Your task to perform on an android device: What's the weather going to be tomorrow? Image 0: 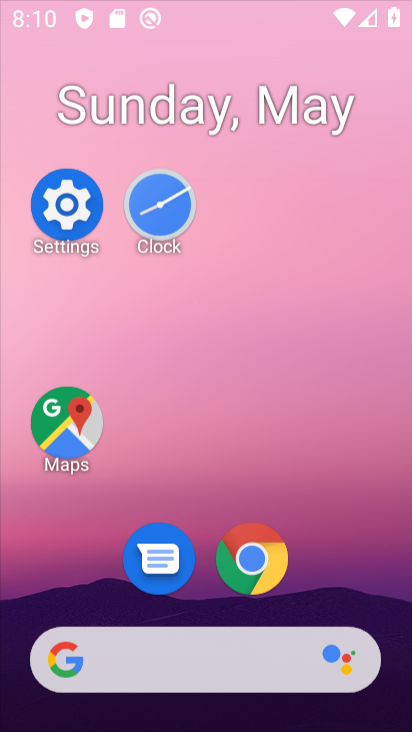
Step 0: click (88, 219)
Your task to perform on an android device: What's the weather going to be tomorrow? Image 1: 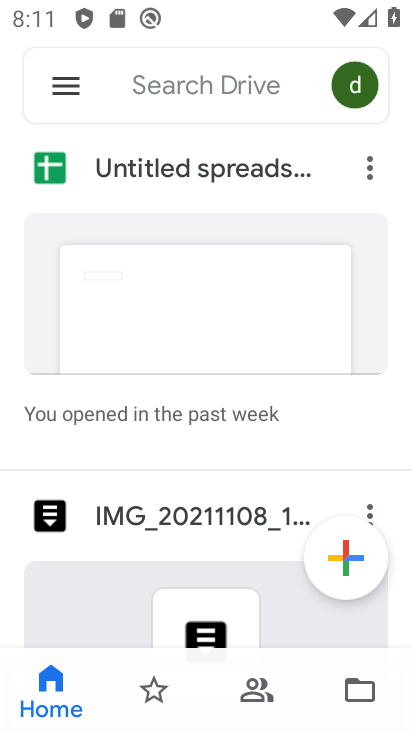
Step 1: press home button
Your task to perform on an android device: What's the weather going to be tomorrow? Image 2: 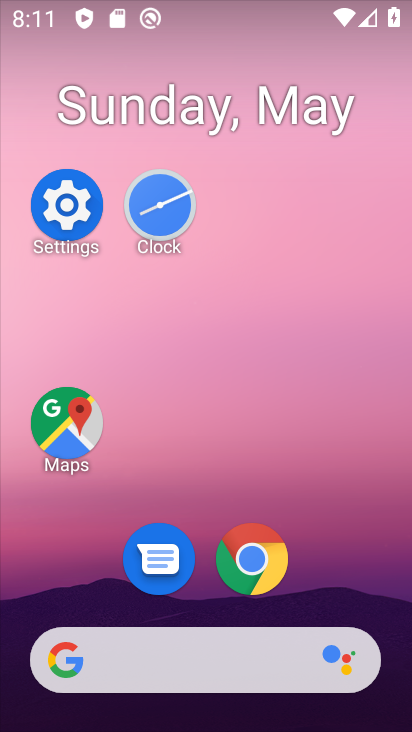
Step 2: drag from (339, 480) to (368, 209)
Your task to perform on an android device: What's the weather going to be tomorrow? Image 3: 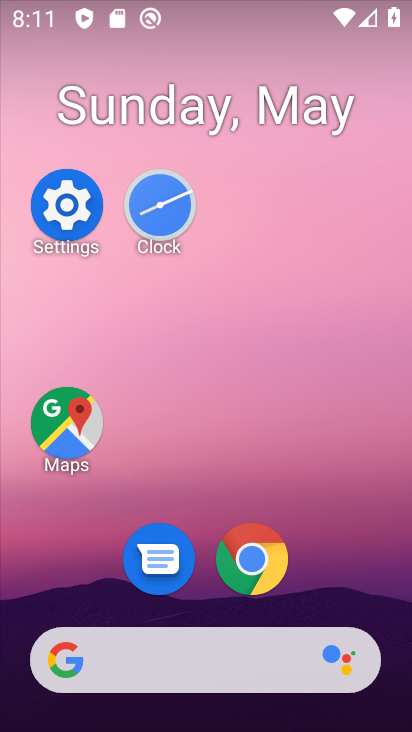
Step 3: drag from (341, 552) to (368, 191)
Your task to perform on an android device: What's the weather going to be tomorrow? Image 4: 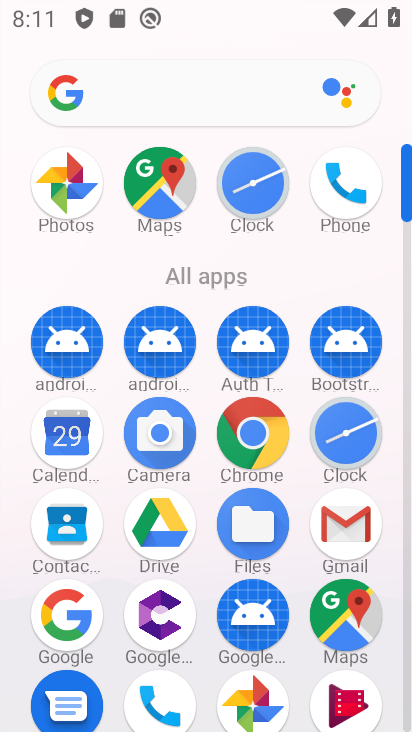
Step 4: drag from (73, 616) to (234, 376)
Your task to perform on an android device: What's the weather going to be tomorrow? Image 5: 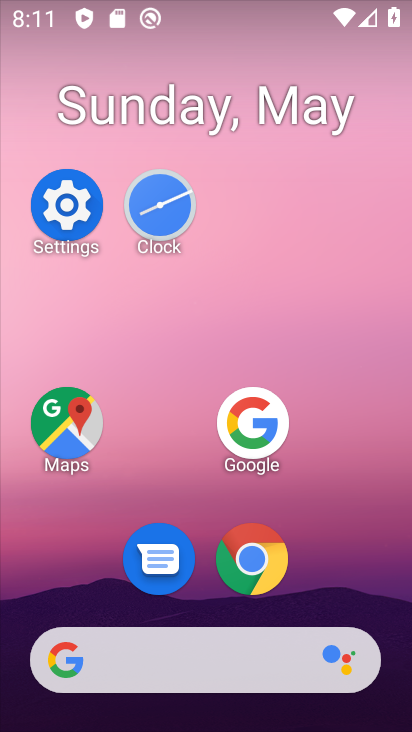
Step 5: drag from (246, 423) to (138, 455)
Your task to perform on an android device: What's the weather going to be tomorrow? Image 6: 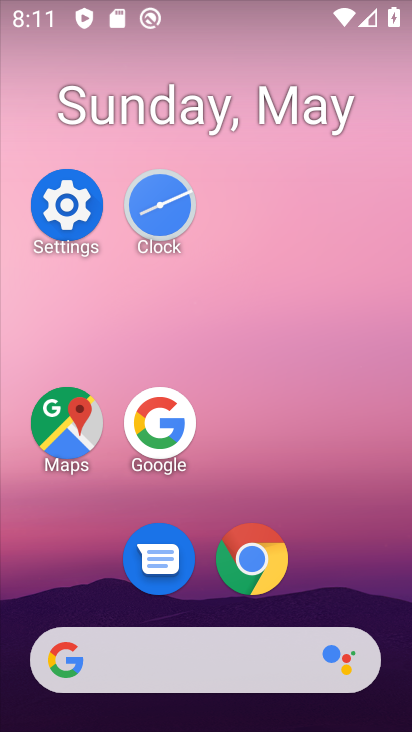
Step 6: click (166, 412)
Your task to perform on an android device: What's the weather going to be tomorrow? Image 7: 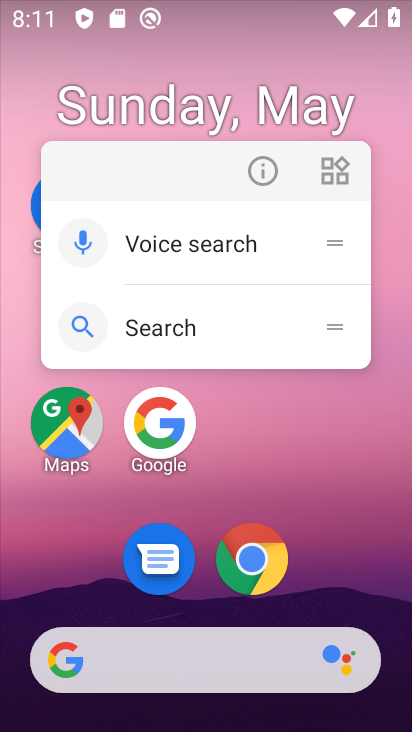
Step 7: click (184, 429)
Your task to perform on an android device: What's the weather going to be tomorrow? Image 8: 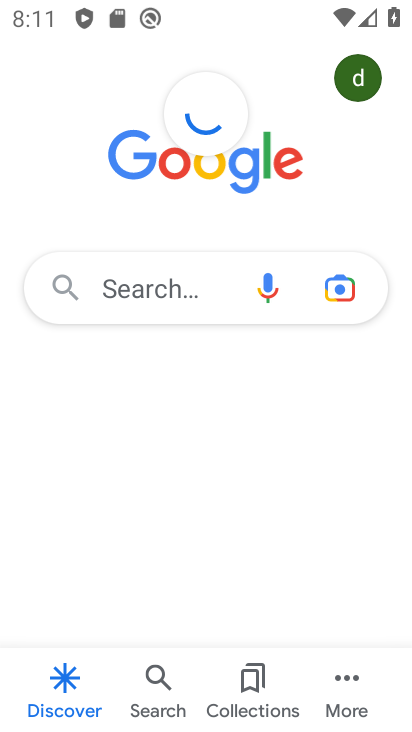
Step 8: click (158, 274)
Your task to perform on an android device: What's the weather going to be tomorrow? Image 9: 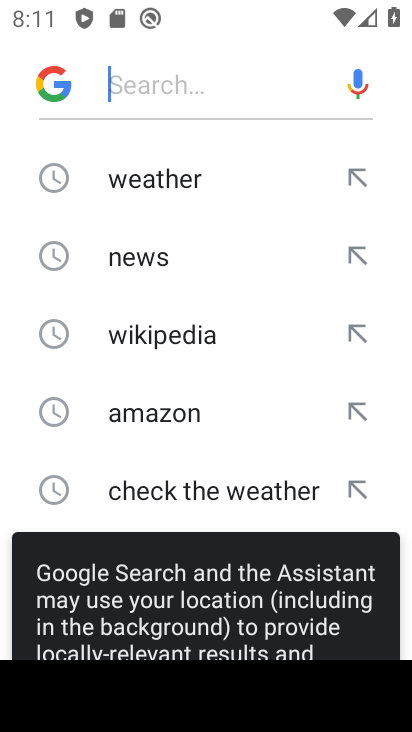
Step 9: click (205, 187)
Your task to perform on an android device: What's the weather going to be tomorrow? Image 10: 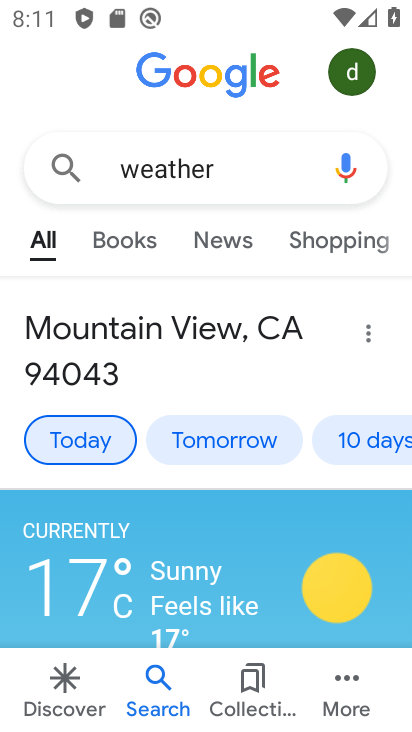
Step 10: click (250, 450)
Your task to perform on an android device: What's the weather going to be tomorrow? Image 11: 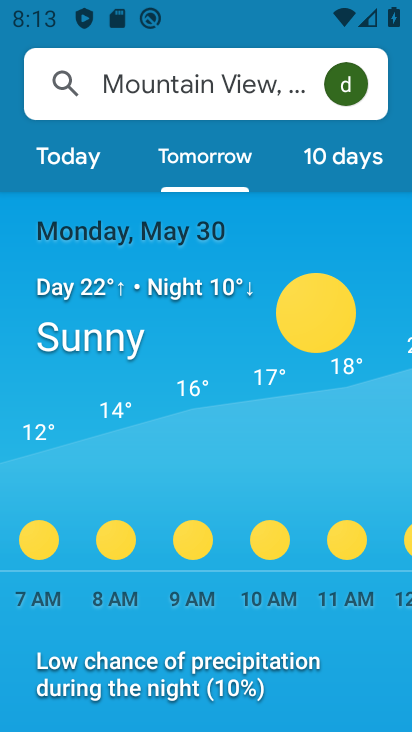
Step 11: task complete